Your task to perform on an android device: turn pop-ups on in chrome Image 0: 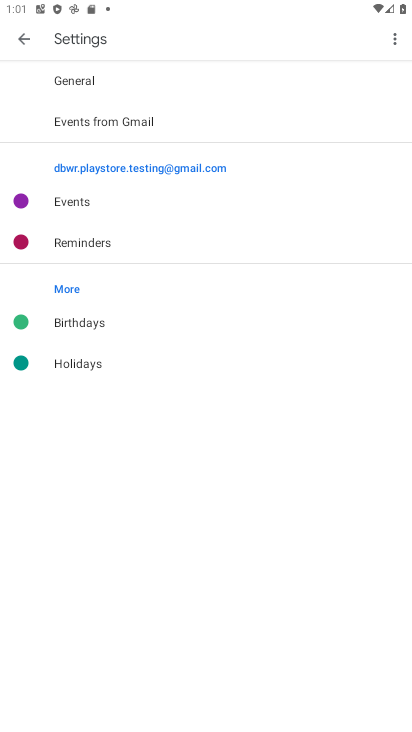
Step 0: press home button
Your task to perform on an android device: turn pop-ups on in chrome Image 1: 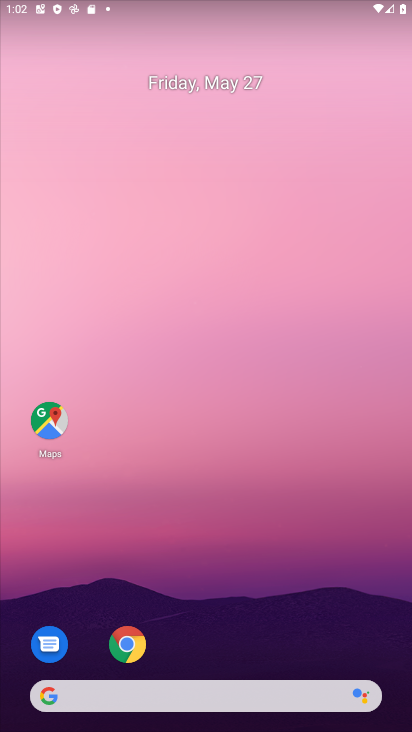
Step 1: drag from (324, 646) to (307, 96)
Your task to perform on an android device: turn pop-ups on in chrome Image 2: 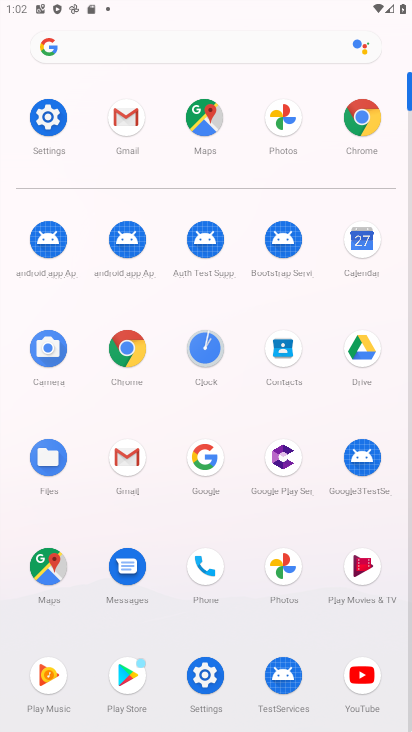
Step 2: click (121, 344)
Your task to perform on an android device: turn pop-ups on in chrome Image 3: 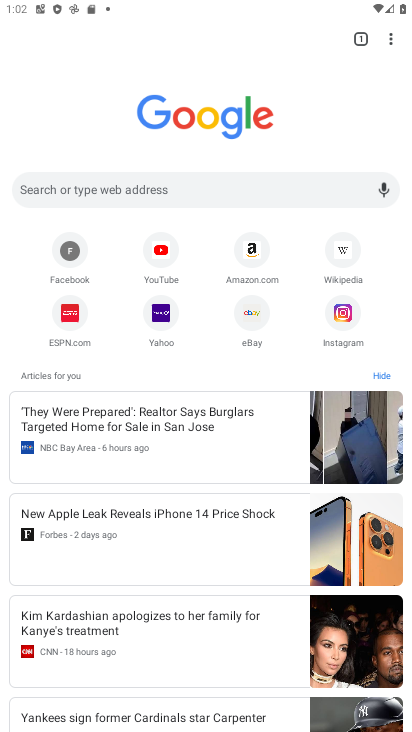
Step 3: click (393, 41)
Your task to perform on an android device: turn pop-ups on in chrome Image 4: 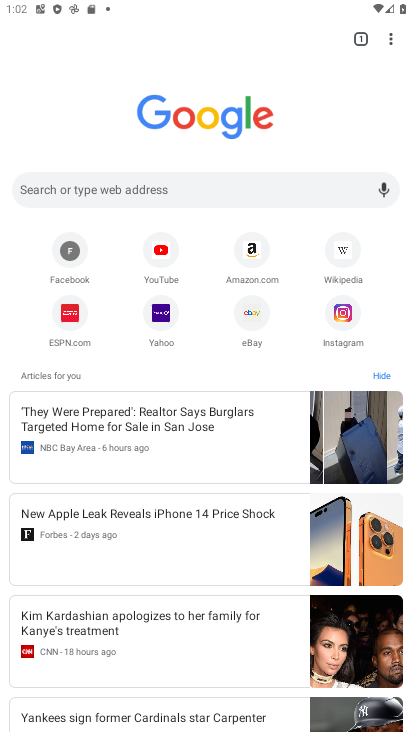
Step 4: click (389, 28)
Your task to perform on an android device: turn pop-ups on in chrome Image 5: 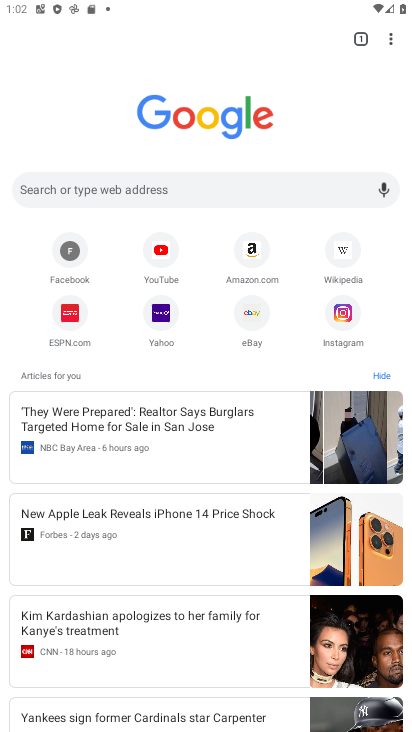
Step 5: click (388, 34)
Your task to perform on an android device: turn pop-ups on in chrome Image 6: 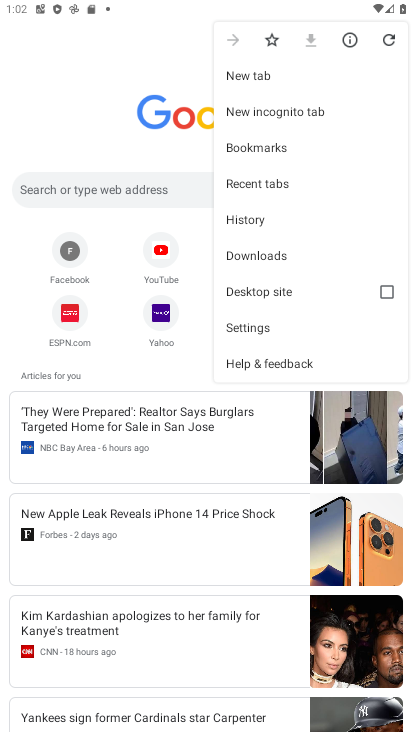
Step 6: click (271, 333)
Your task to perform on an android device: turn pop-ups on in chrome Image 7: 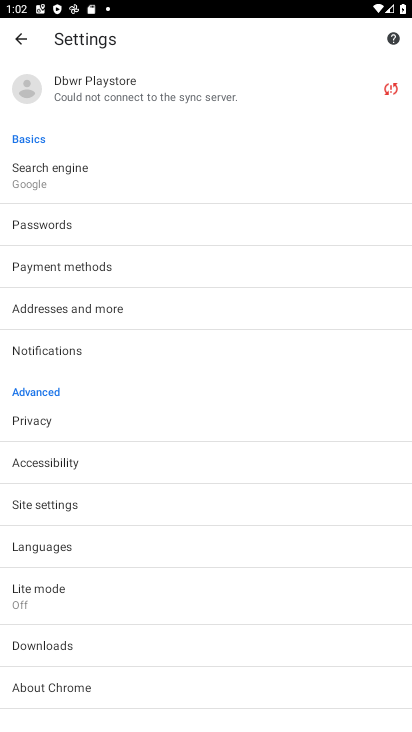
Step 7: click (107, 514)
Your task to perform on an android device: turn pop-ups on in chrome Image 8: 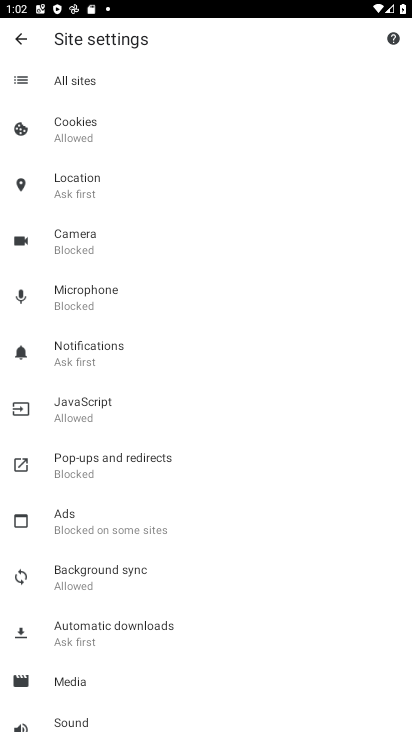
Step 8: click (110, 463)
Your task to perform on an android device: turn pop-ups on in chrome Image 9: 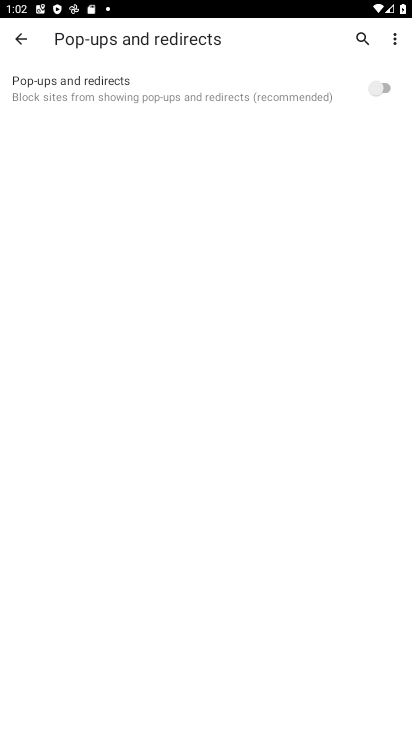
Step 9: click (368, 101)
Your task to perform on an android device: turn pop-ups on in chrome Image 10: 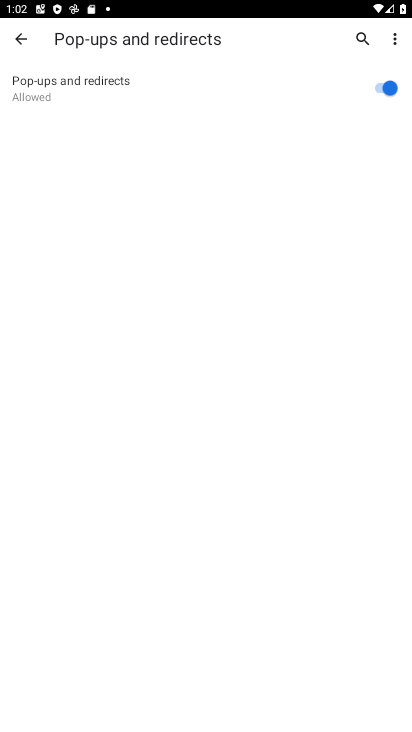
Step 10: task complete